Your task to perform on an android device: Go to eBay Image 0: 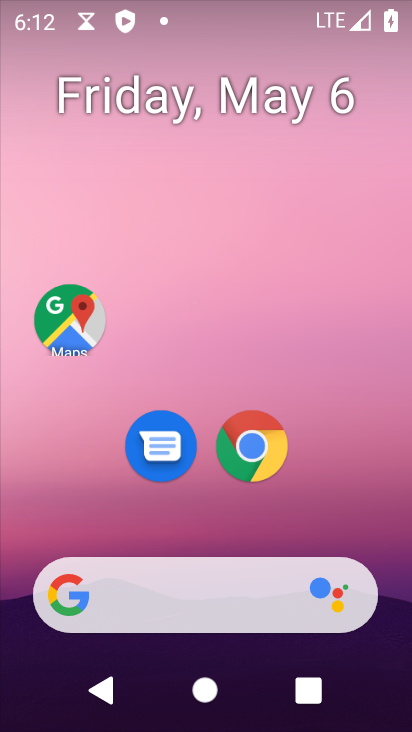
Step 0: click (258, 439)
Your task to perform on an android device: Go to eBay Image 1: 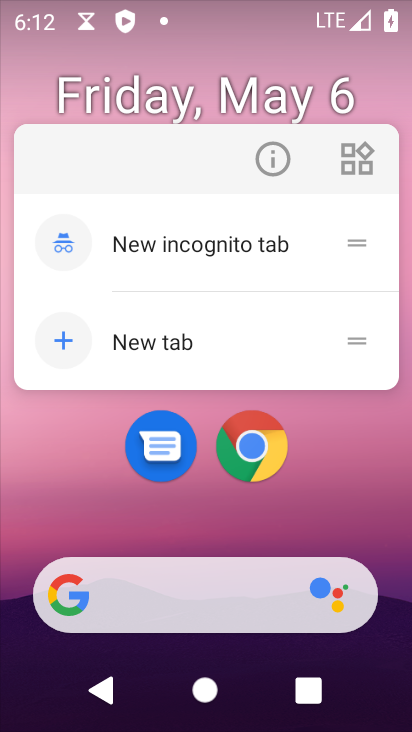
Step 1: click (242, 496)
Your task to perform on an android device: Go to eBay Image 2: 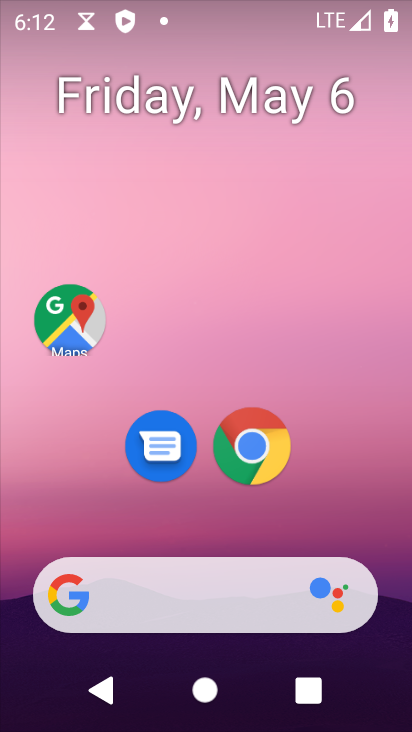
Step 2: click (238, 484)
Your task to perform on an android device: Go to eBay Image 3: 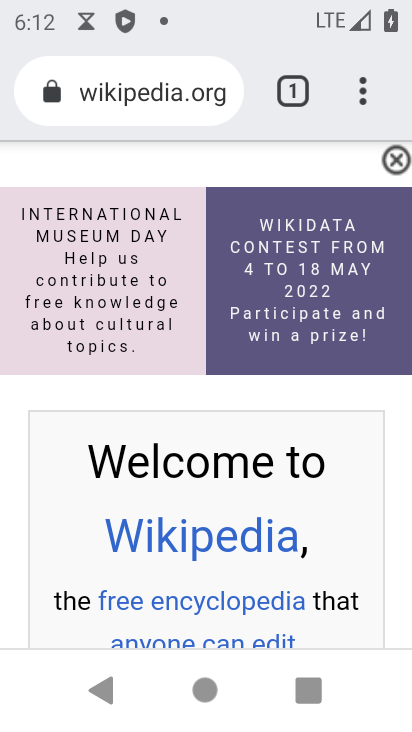
Step 3: click (123, 93)
Your task to perform on an android device: Go to eBay Image 4: 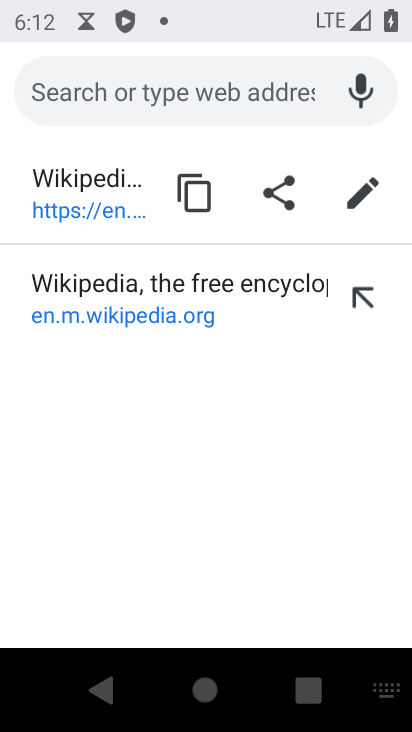
Step 4: type "www.ebay.com"
Your task to perform on an android device: Go to eBay Image 5: 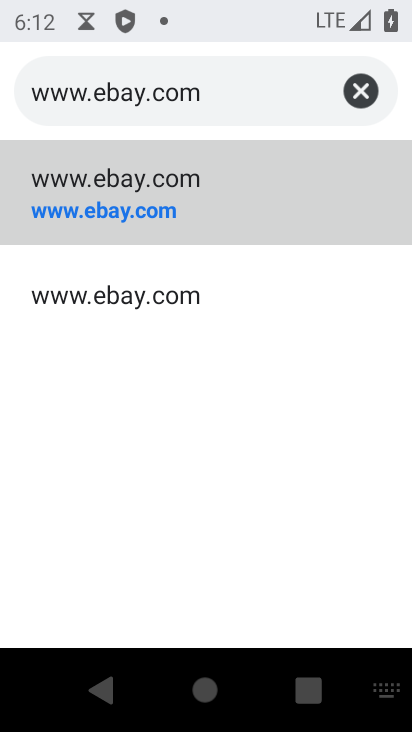
Step 5: click (109, 219)
Your task to perform on an android device: Go to eBay Image 6: 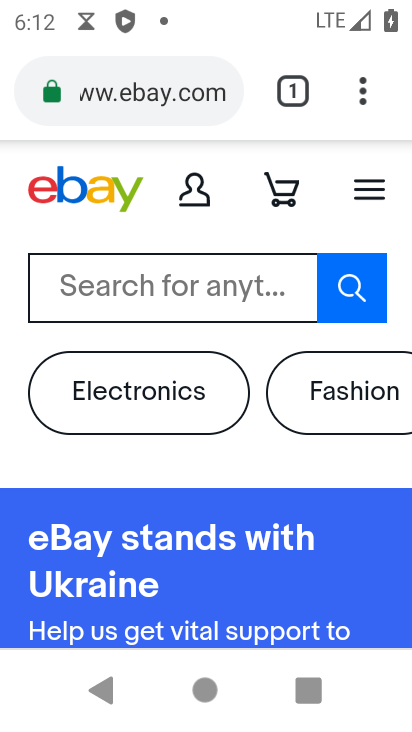
Step 6: task complete